Your task to perform on an android device: turn on the 12-hour format for clock Image 0: 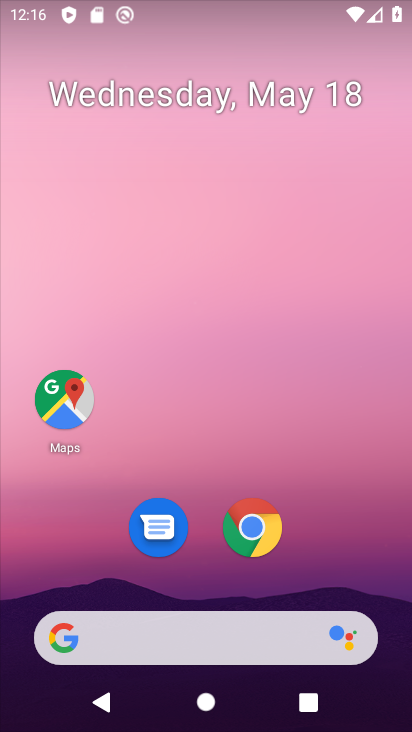
Step 0: drag from (310, 502) to (263, 103)
Your task to perform on an android device: turn on the 12-hour format for clock Image 1: 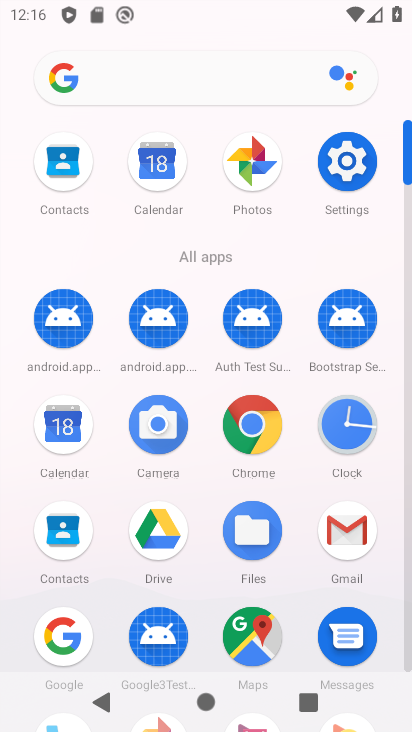
Step 1: click (336, 414)
Your task to perform on an android device: turn on the 12-hour format for clock Image 2: 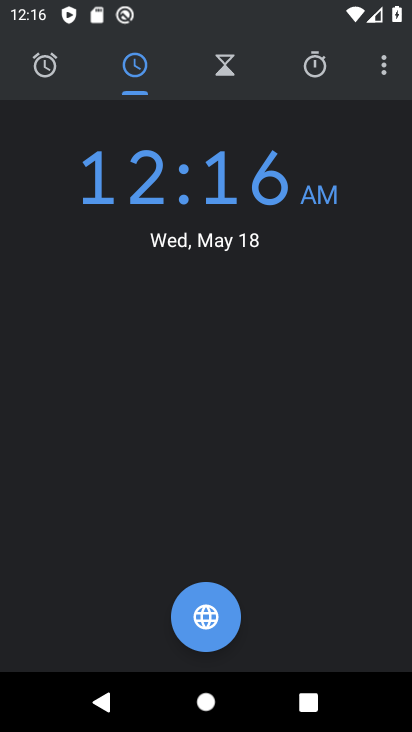
Step 2: click (369, 60)
Your task to perform on an android device: turn on the 12-hour format for clock Image 3: 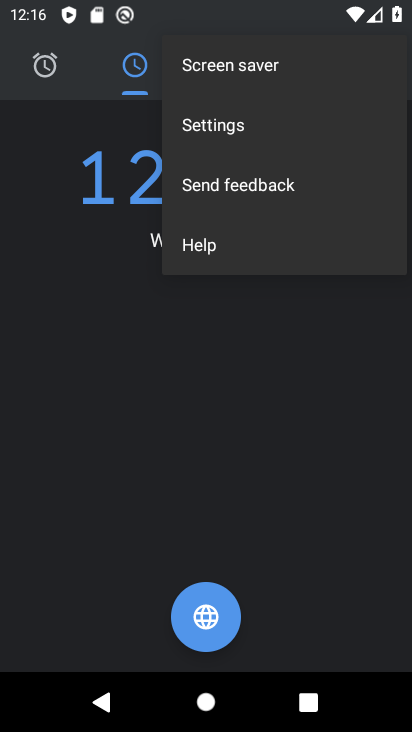
Step 3: click (269, 126)
Your task to perform on an android device: turn on the 12-hour format for clock Image 4: 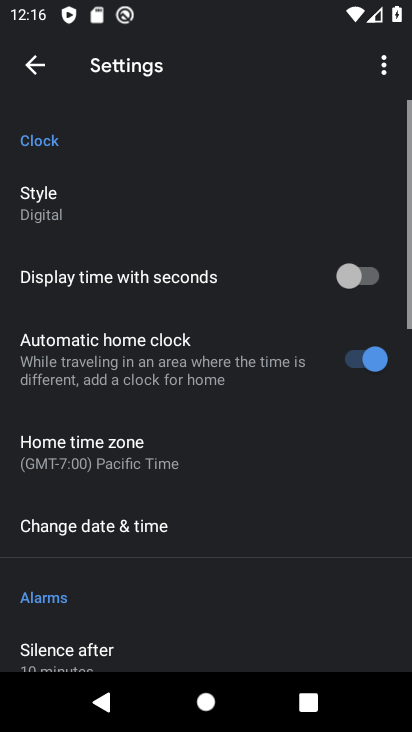
Step 4: click (150, 518)
Your task to perform on an android device: turn on the 12-hour format for clock Image 5: 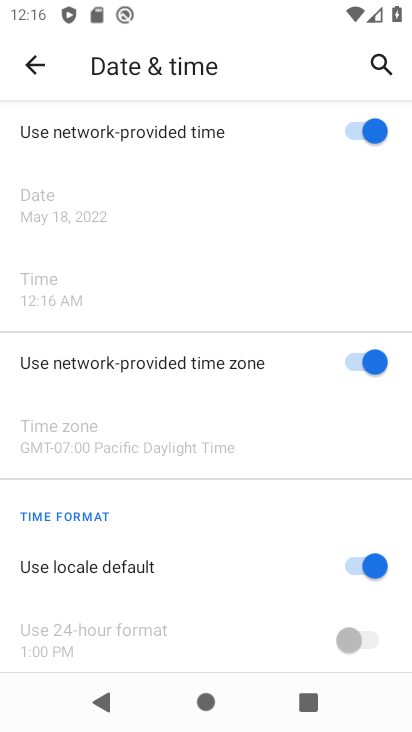
Step 5: task complete